Your task to perform on an android device: Go to network settings Image 0: 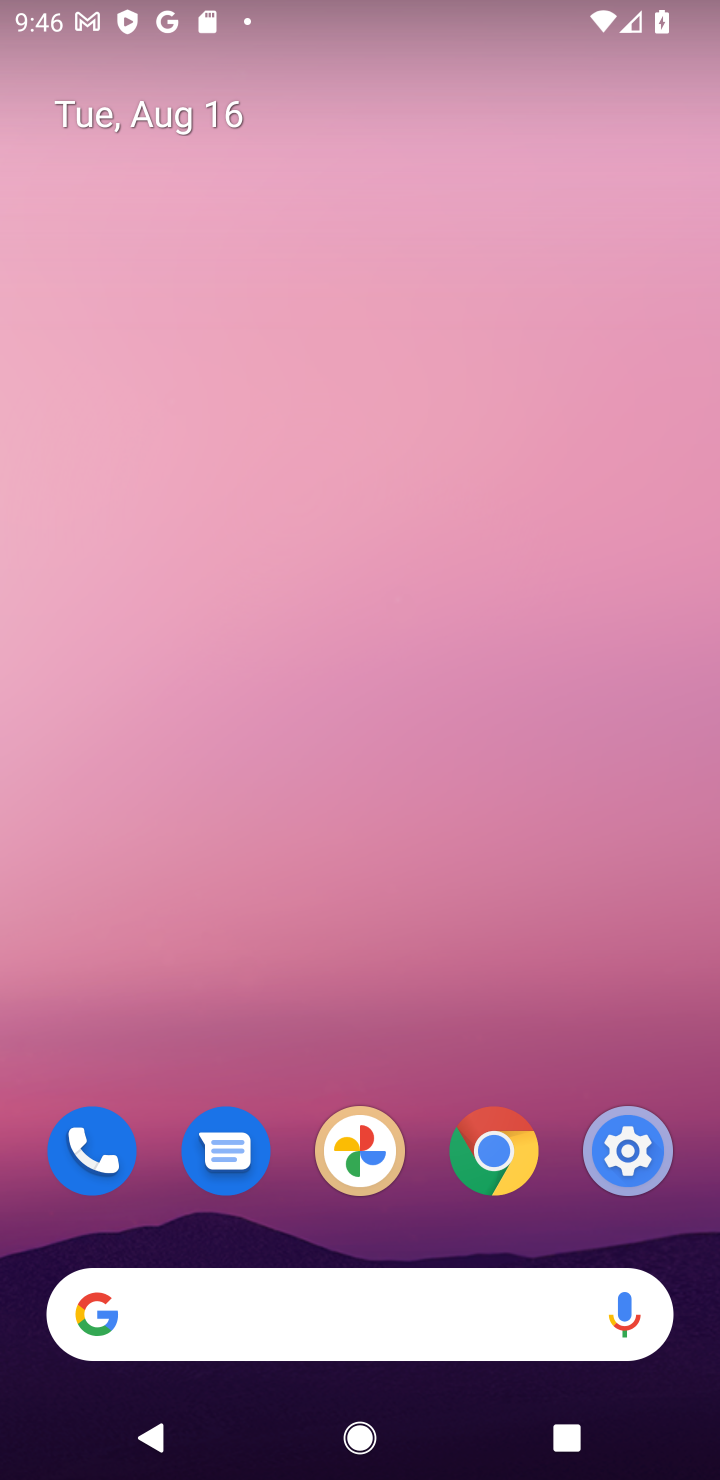
Step 0: click (646, 1148)
Your task to perform on an android device: Go to network settings Image 1: 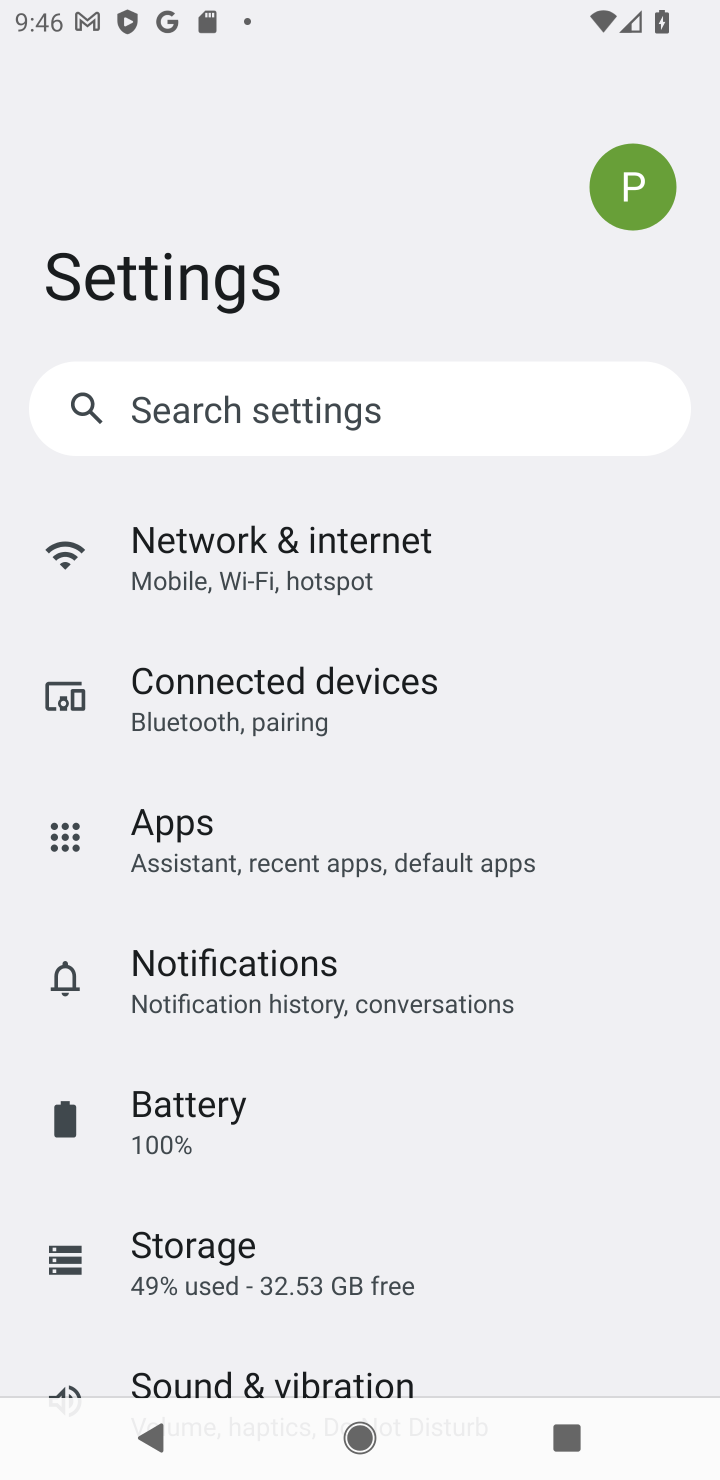
Step 1: click (245, 576)
Your task to perform on an android device: Go to network settings Image 2: 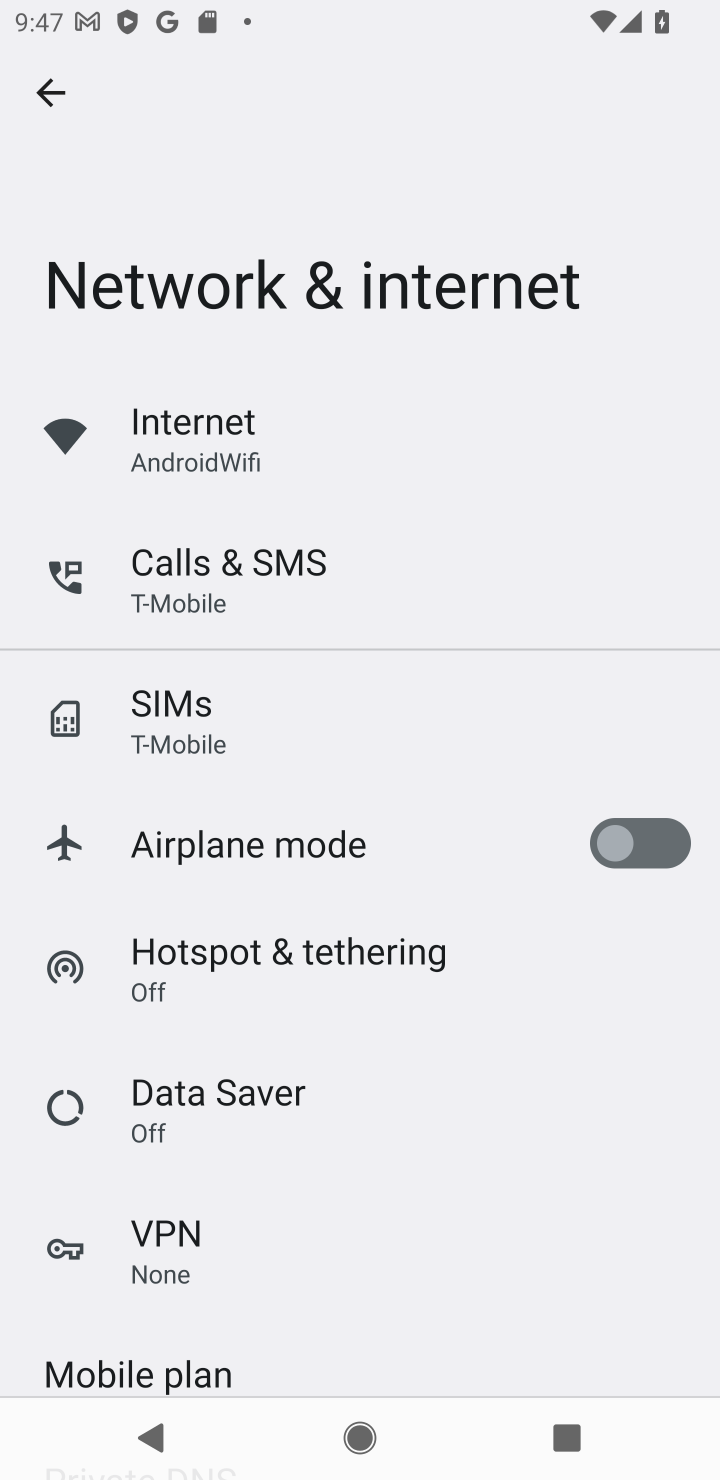
Step 2: task complete